Your task to perform on an android device: What's the weather going to be tomorrow? Image 0: 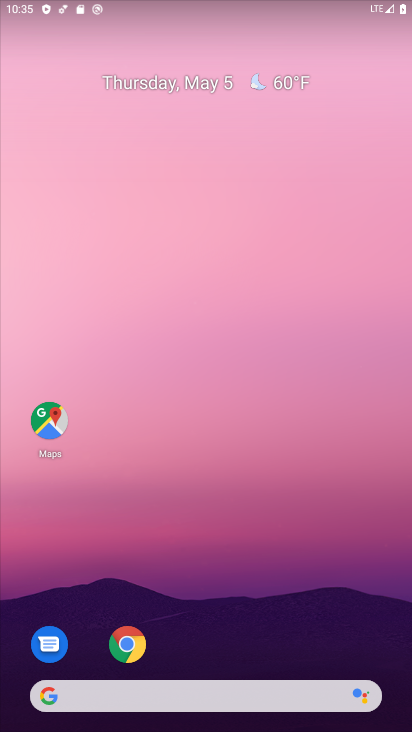
Step 0: drag from (367, 615) to (376, 109)
Your task to perform on an android device: What's the weather going to be tomorrow? Image 1: 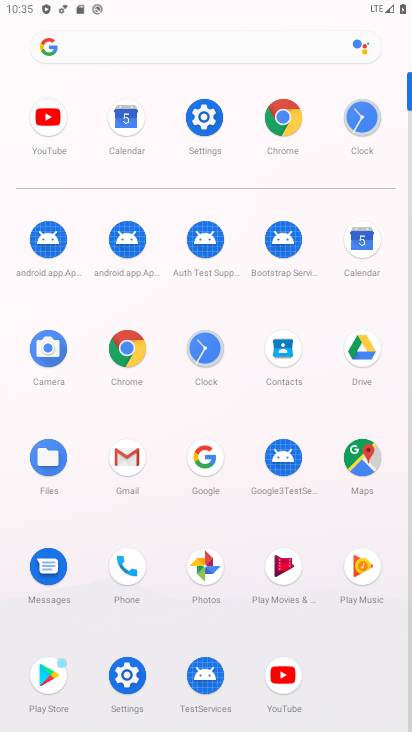
Step 1: click (138, 353)
Your task to perform on an android device: What's the weather going to be tomorrow? Image 2: 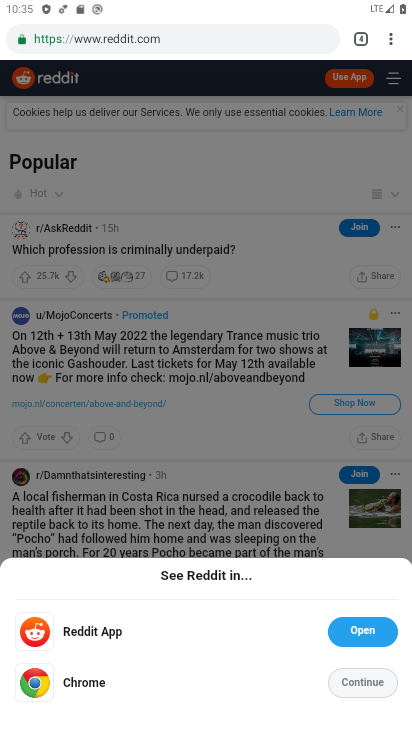
Step 2: click (128, 41)
Your task to perform on an android device: What's the weather going to be tomorrow? Image 3: 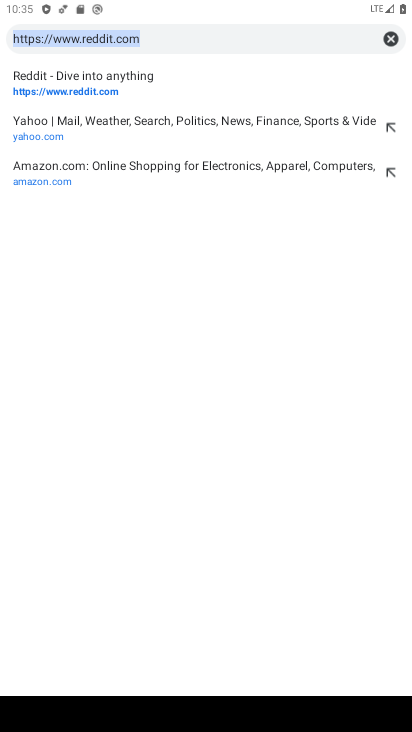
Step 3: click (387, 42)
Your task to perform on an android device: What's the weather going to be tomorrow? Image 4: 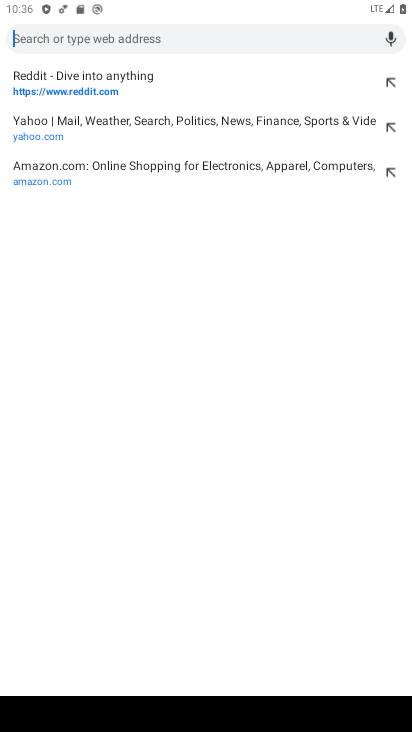
Step 4: type "what's the weather going to be tomorrow"
Your task to perform on an android device: What's the weather going to be tomorrow? Image 5: 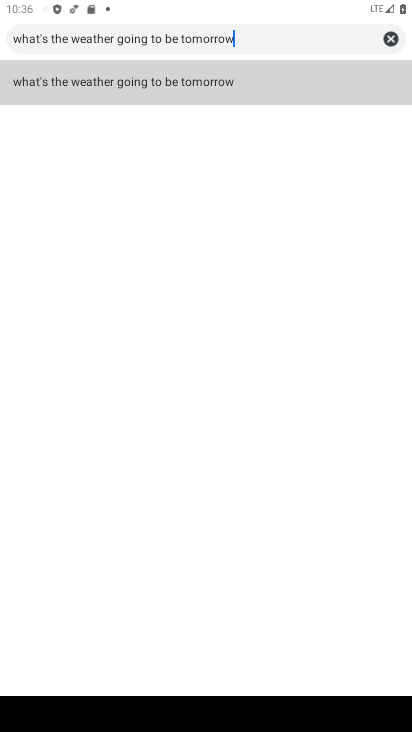
Step 5: click (165, 80)
Your task to perform on an android device: What's the weather going to be tomorrow? Image 6: 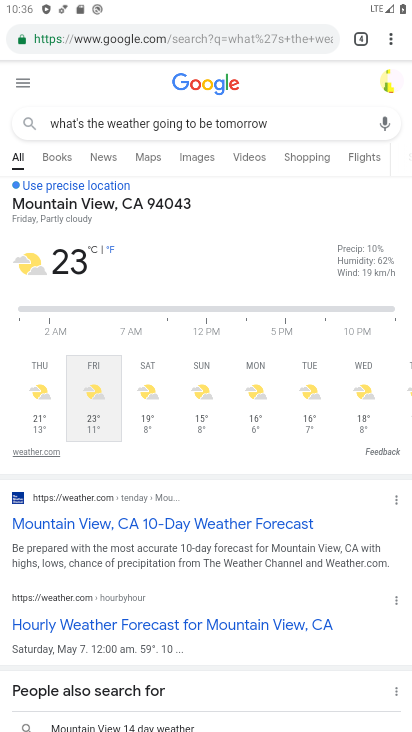
Step 6: task complete